Your task to perform on an android device: Search for seafood restaurants on Google Maps Image 0: 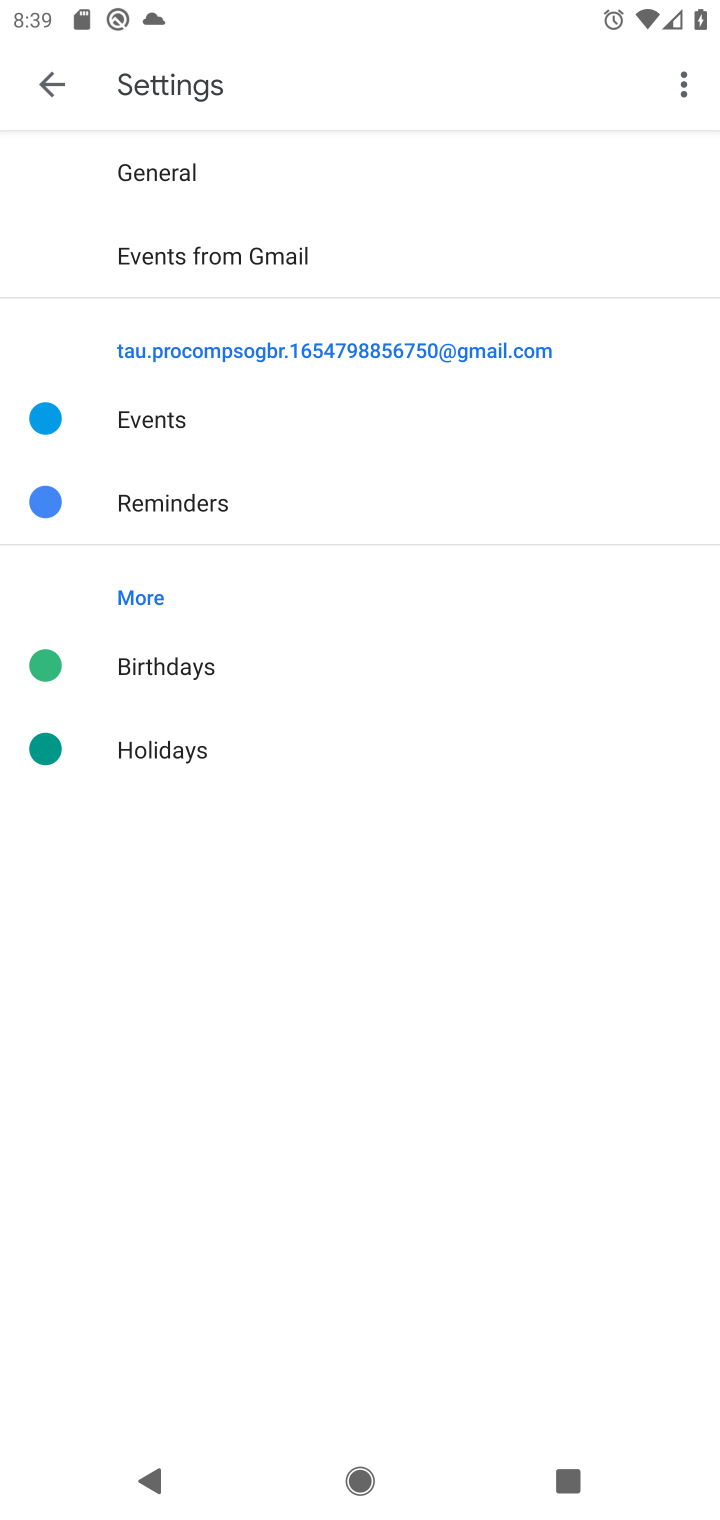
Step 0: press home button
Your task to perform on an android device: Search for seafood restaurants on Google Maps Image 1: 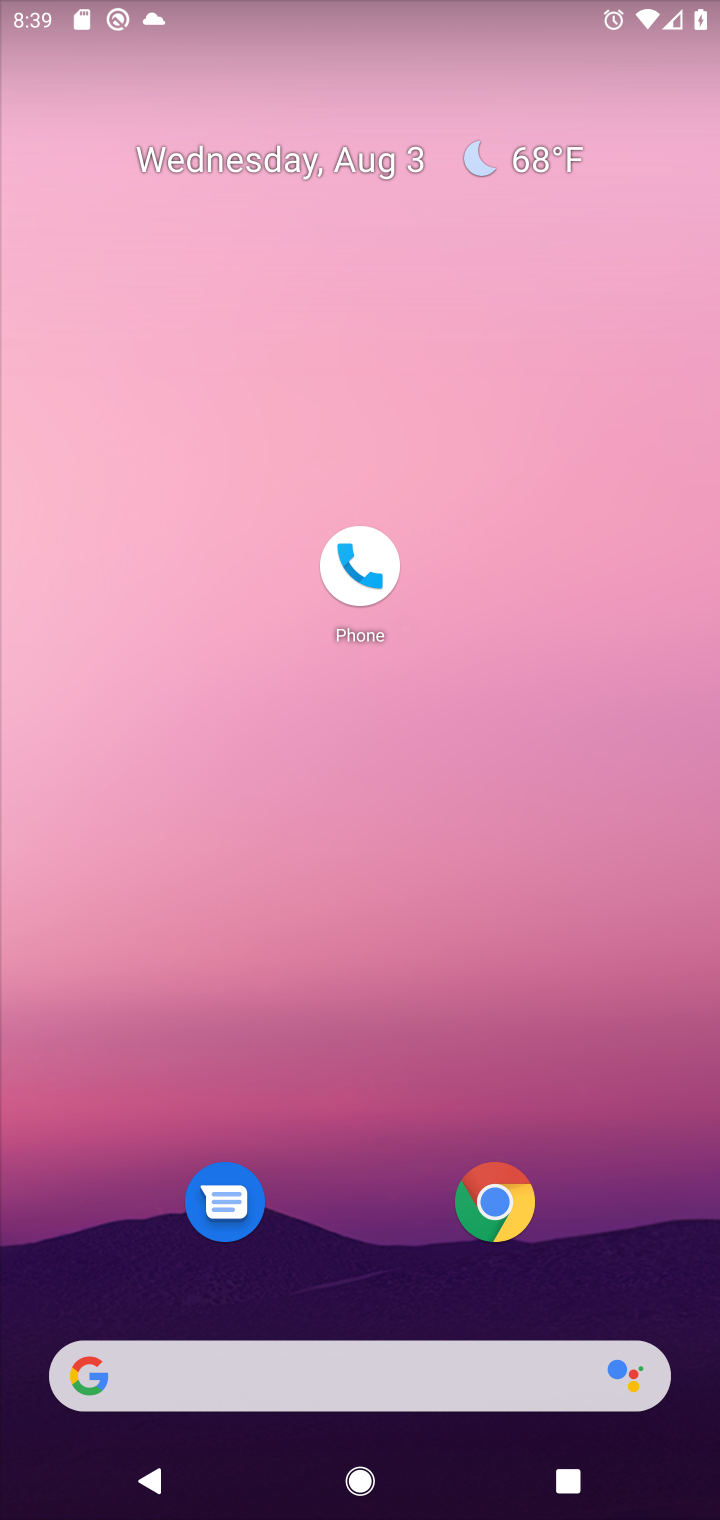
Step 1: drag from (328, 1382) to (445, 7)
Your task to perform on an android device: Search for seafood restaurants on Google Maps Image 2: 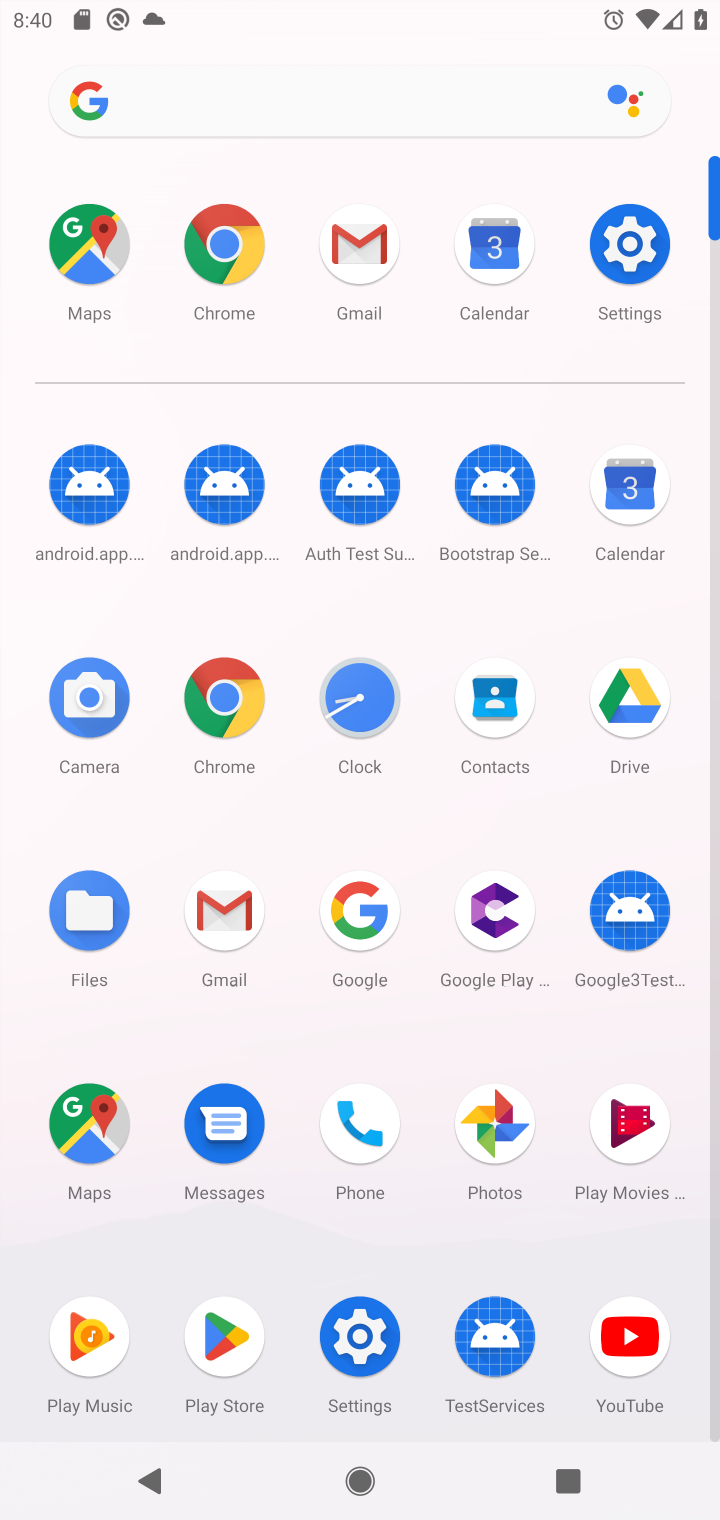
Step 2: click (87, 247)
Your task to perform on an android device: Search for seafood restaurants on Google Maps Image 3: 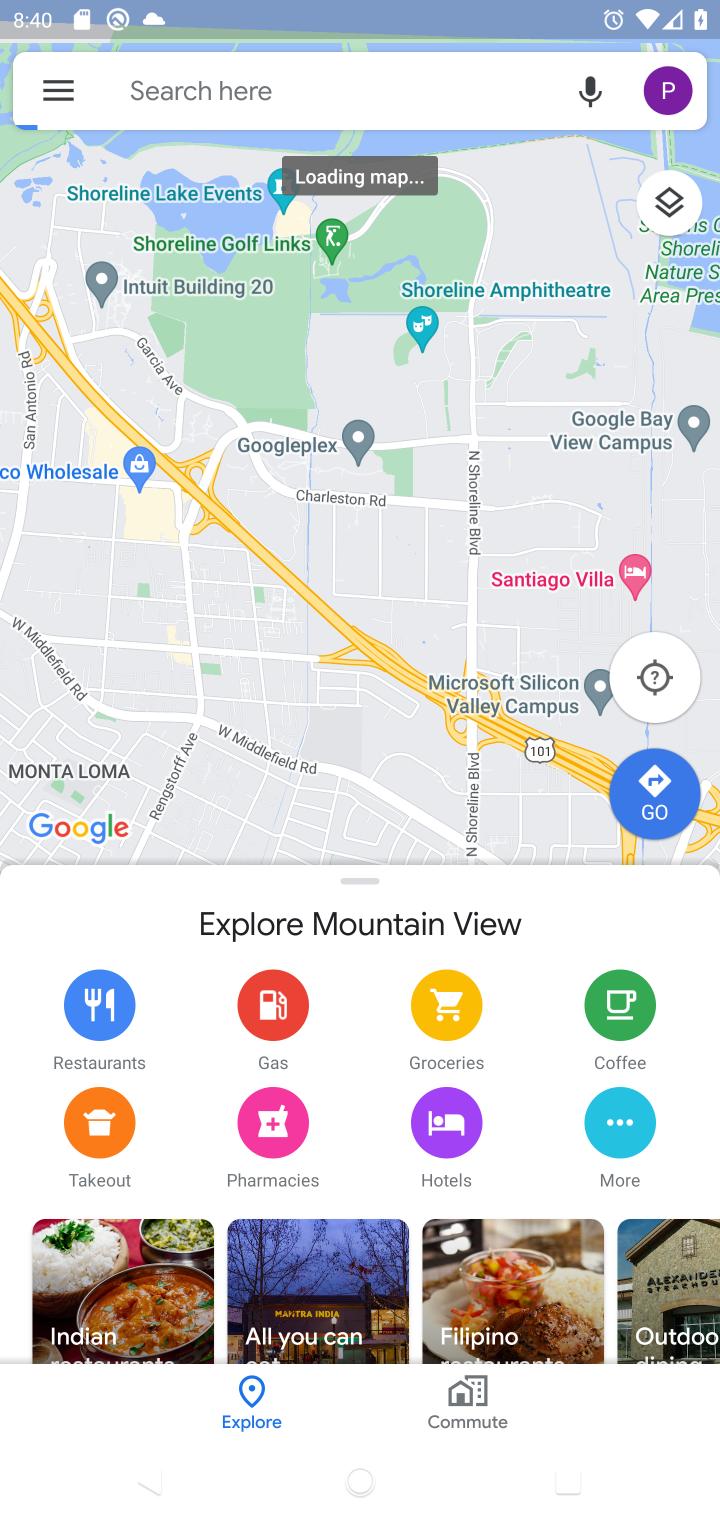
Step 3: click (200, 105)
Your task to perform on an android device: Search for seafood restaurants on Google Maps Image 4: 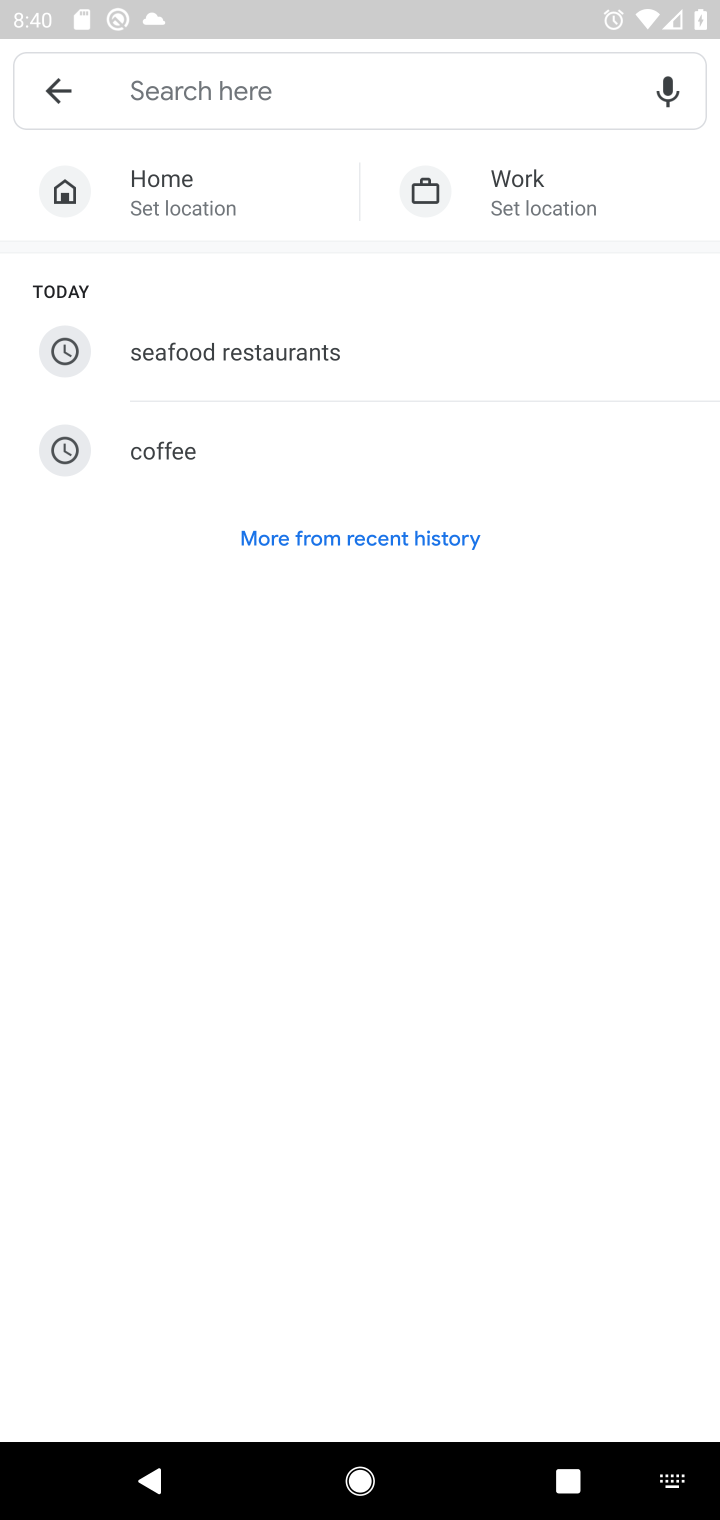
Step 4: type "seafood restaurants"
Your task to perform on an android device: Search for seafood restaurants on Google Maps Image 5: 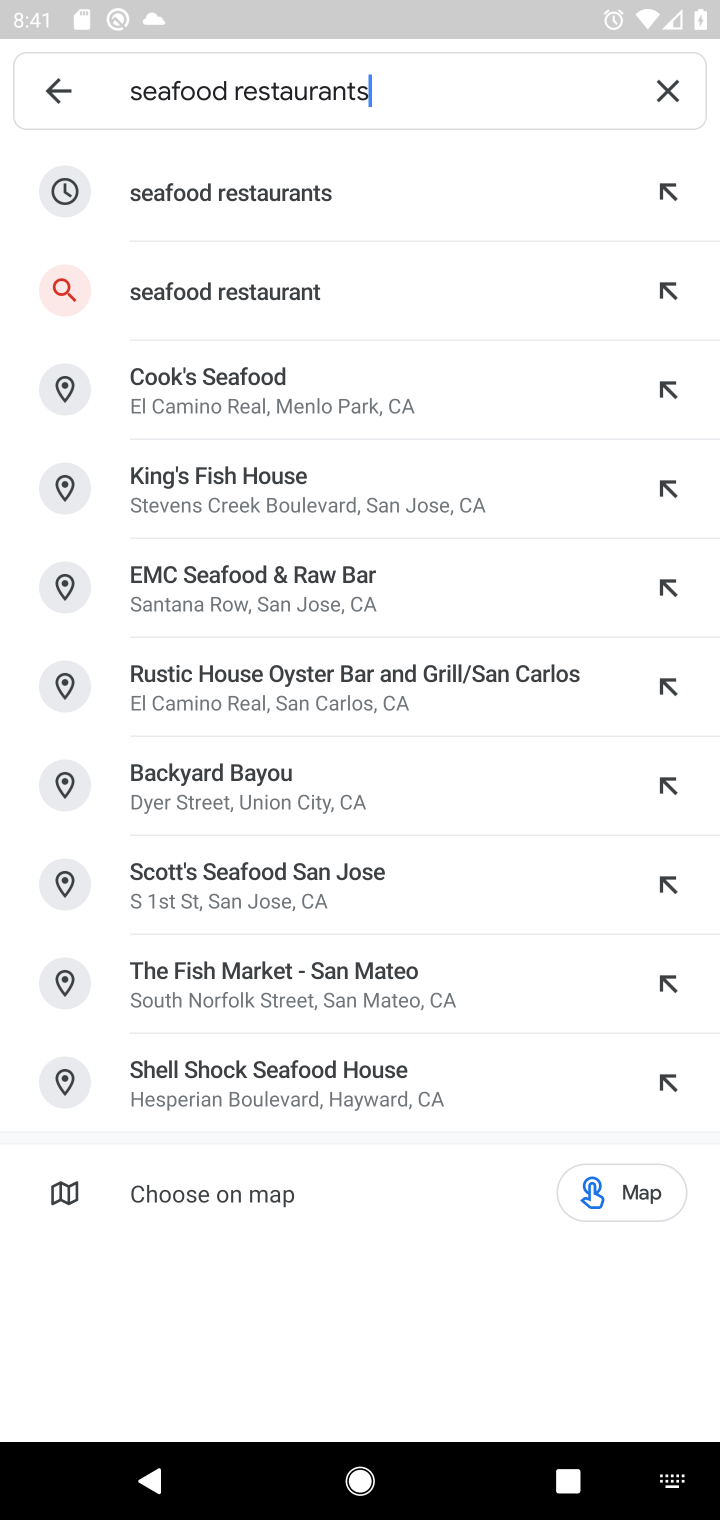
Step 5: click (252, 201)
Your task to perform on an android device: Search for seafood restaurants on Google Maps Image 6: 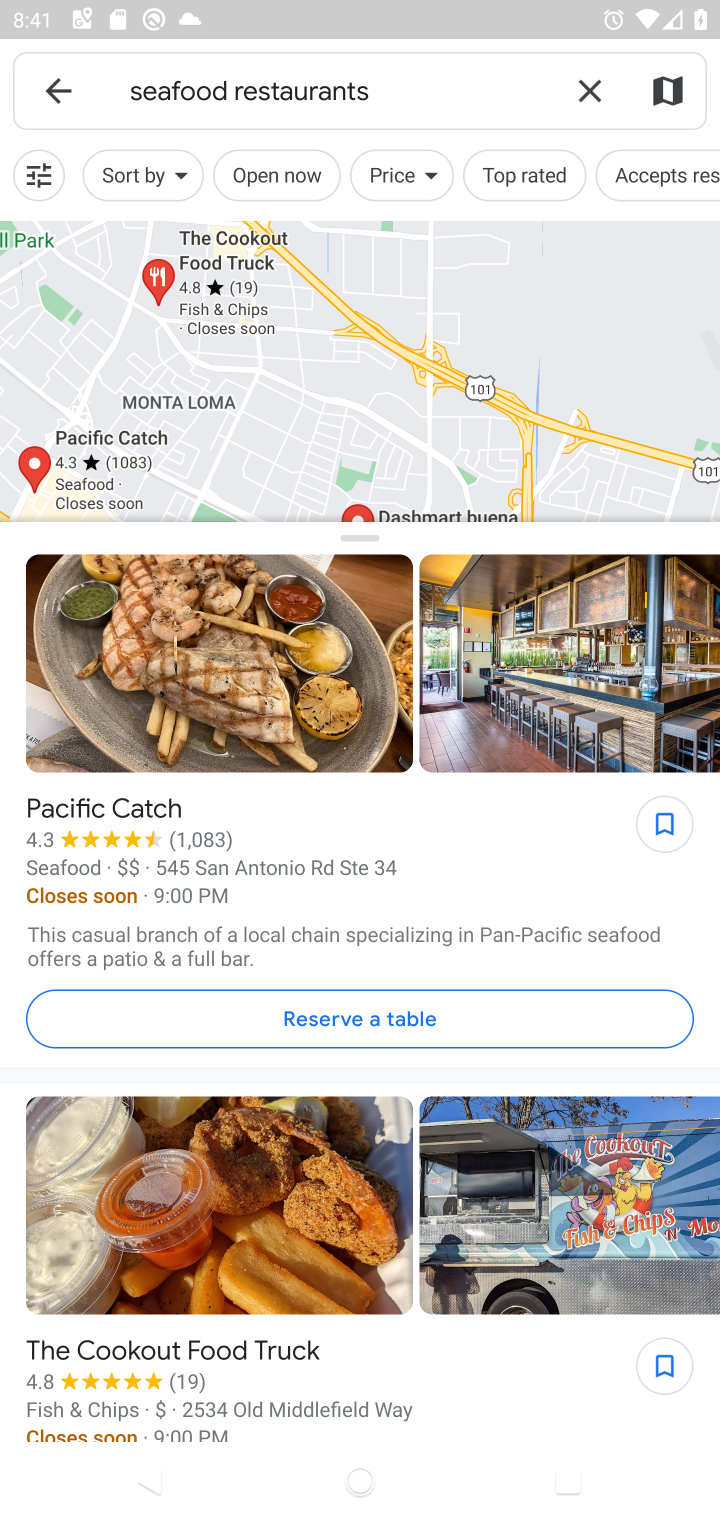
Step 6: task complete